Your task to perform on an android device: toggle javascript in the chrome app Image 0: 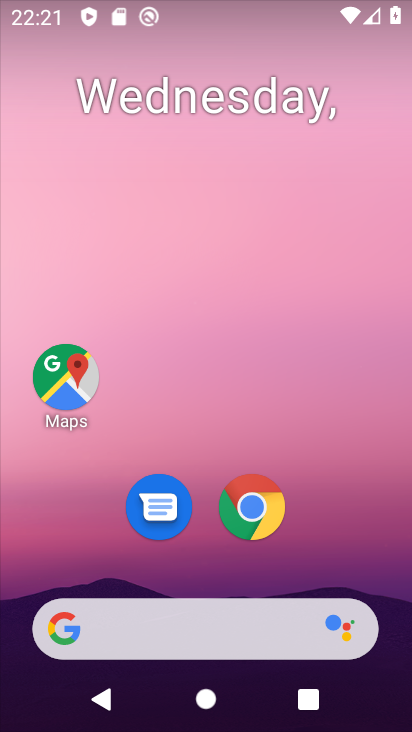
Step 0: drag from (348, 508) to (347, 315)
Your task to perform on an android device: toggle javascript in the chrome app Image 1: 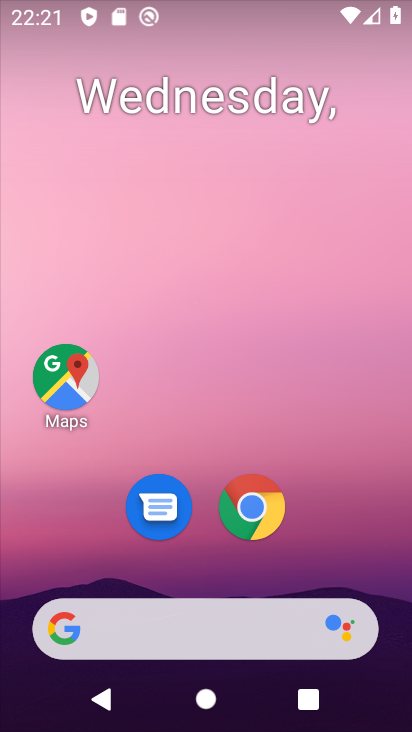
Step 1: click (253, 515)
Your task to perform on an android device: toggle javascript in the chrome app Image 2: 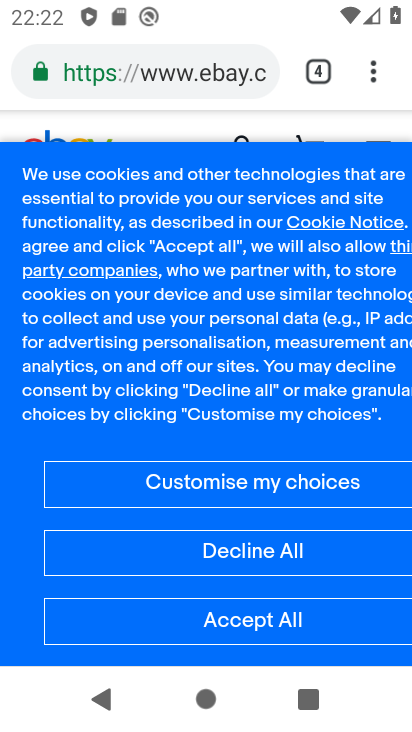
Step 2: click (363, 77)
Your task to perform on an android device: toggle javascript in the chrome app Image 3: 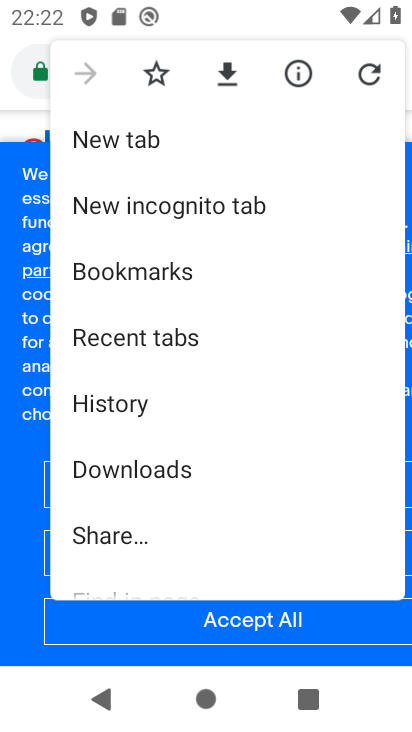
Step 3: drag from (202, 508) to (250, 199)
Your task to perform on an android device: toggle javascript in the chrome app Image 4: 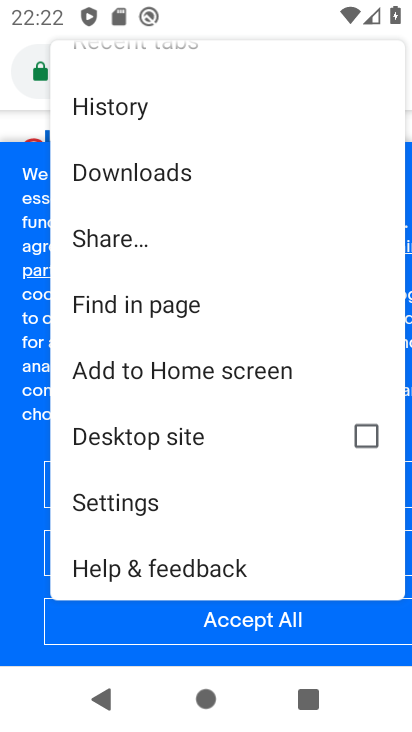
Step 4: click (170, 502)
Your task to perform on an android device: toggle javascript in the chrome app Image 5: 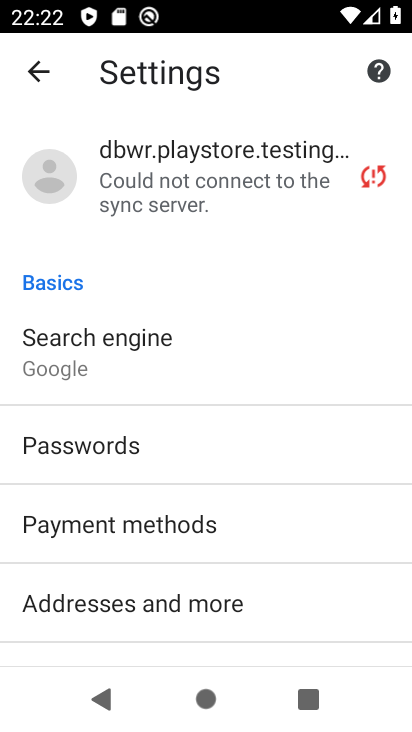
Step 5: drag from (168, 623) to (245, 207)
Your task to perform on an android device: toggle javascript in the chrome app Image 6: 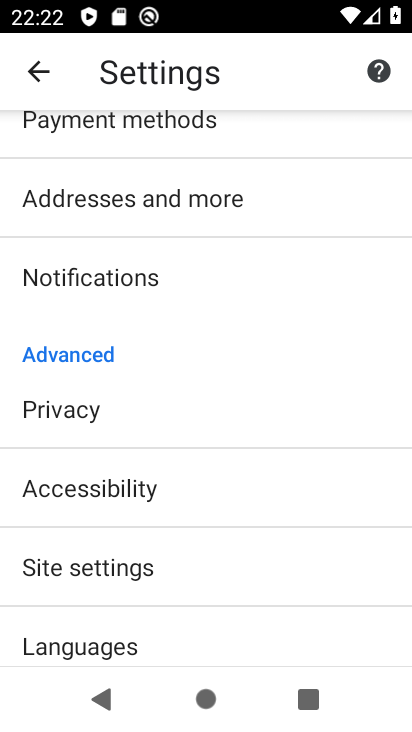
Step 6: drag from (242, 626) to (276, 289)
Your task to perform on an android device: toggle javascript in the chrome app Image 7: 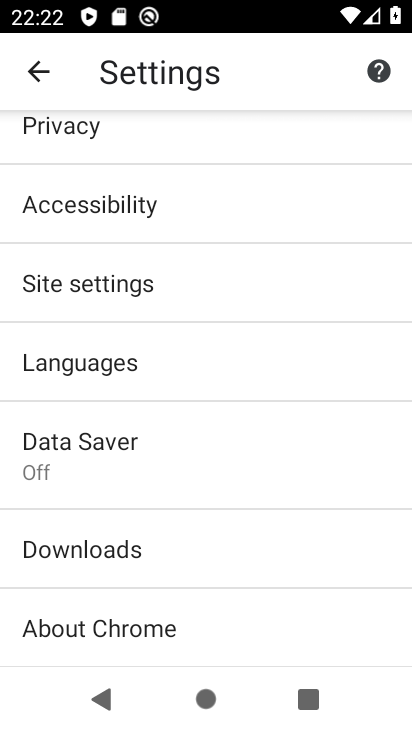
Step 7: click (142, 286)
Your task to perform on an android device: toggle javascript in the chrome app Image 8: 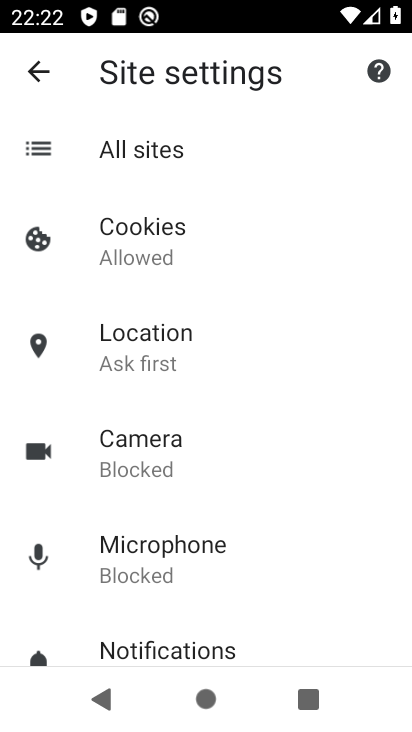
Step 8: drag from (227, 568) to (264, 211)
Your task to perform on an android device: toggle javascript in the chrome app Image 9: 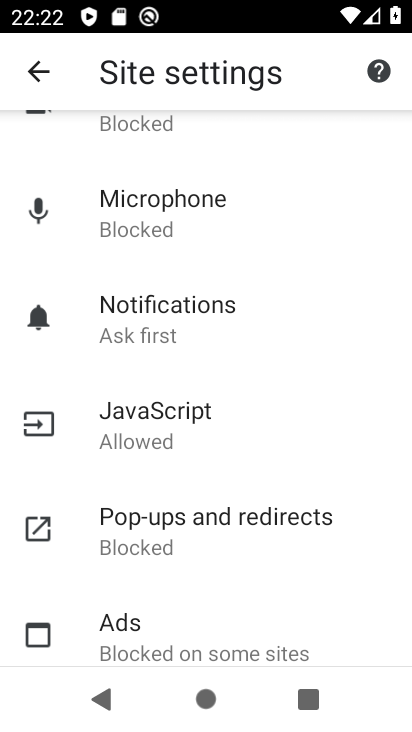
Step 9: click (153, 425)
Your task to perform on an android device: toggle javascript in the chrome app Image 10: 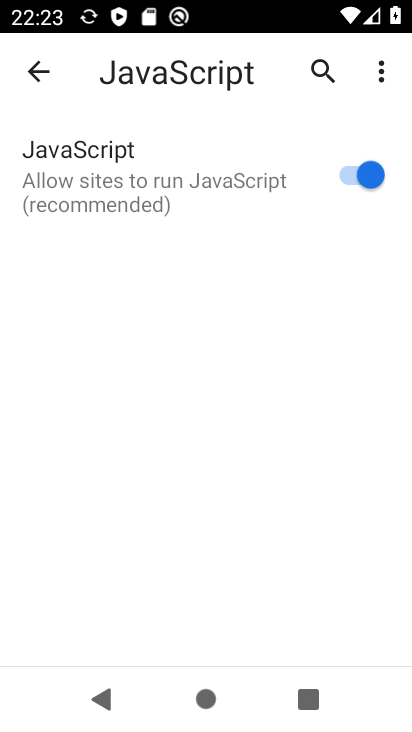
Step 10: click (348, 163)
Your task to perform on an android device: toggle javascript in the chrome app Image 11: 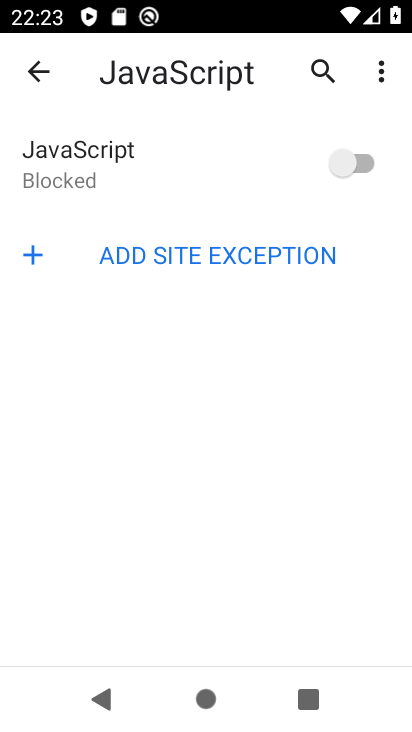
Step 11: task complete